Your task to perform on an android device: What's the weather going to be tomorrow? Image 0: 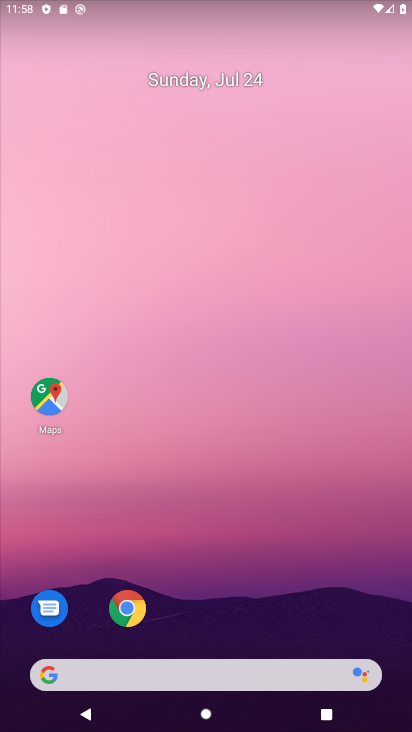
Step 0: click (107, 667)
Your task to perform on an android device: What's the weather going to be tomorrow? Image 1: 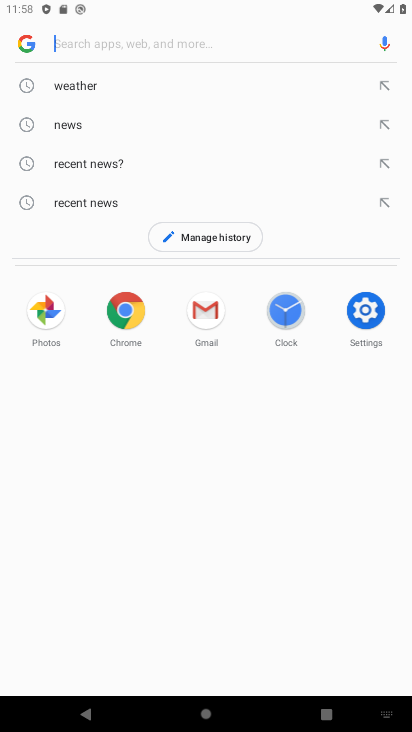
Step 1: click (104, 83)
Your task to perform on an android device: What's the weather going to be tomorrow? Image 2: 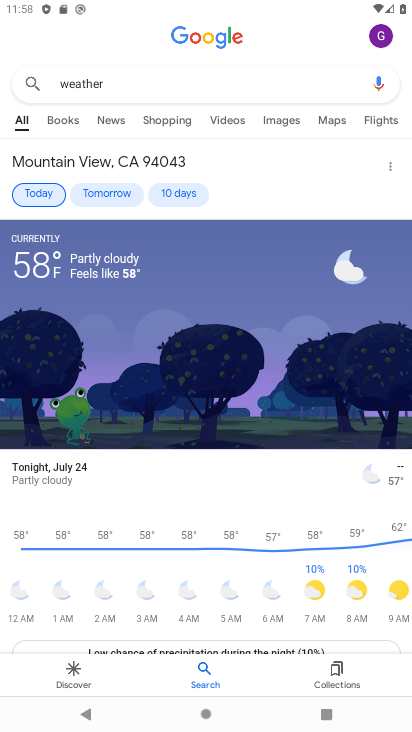
Step 2: click (94, 198)
Your task to perform on an android device: What's the weather going to be tomorrow? Image 3: 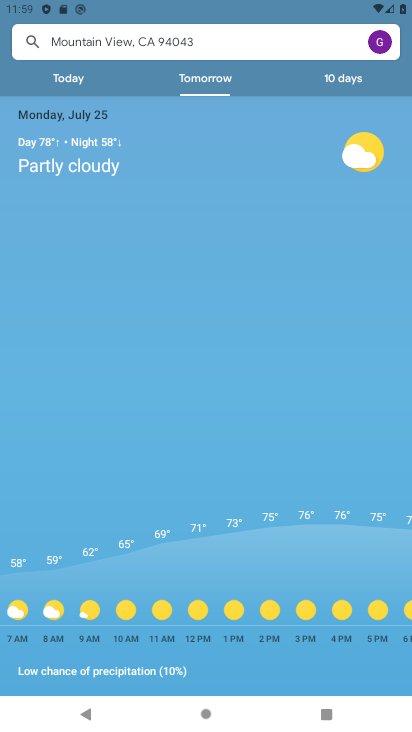
Step 3: task complete